Your task to perform on an android device: Go to Amazon Image 0: 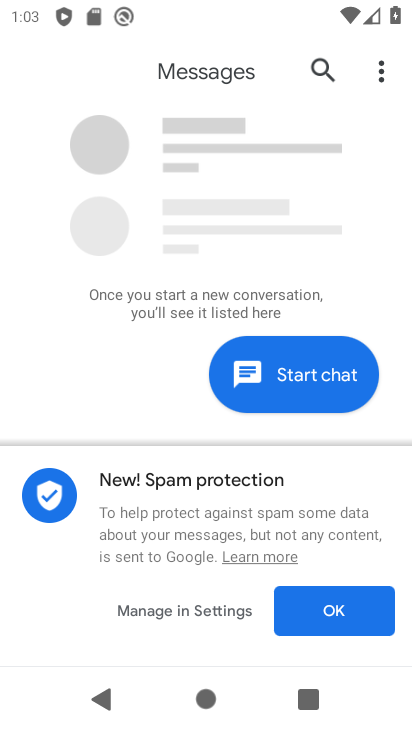
Step 0: press home button
Your task to perform on an android device: Go to Amazon Image 1: 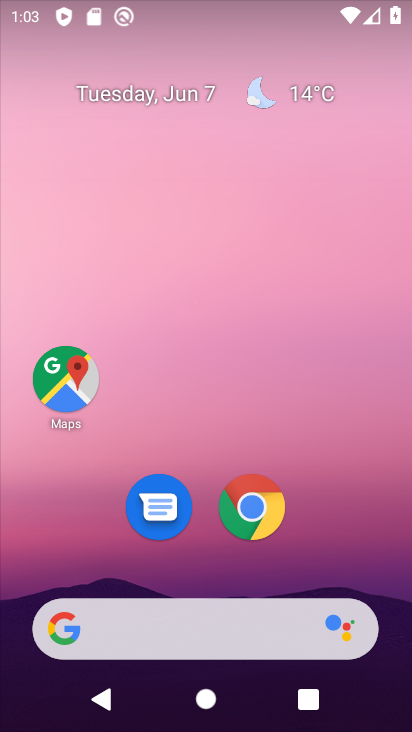
Step 1: click (250, 506)
Your task to perform on an android device: Go to Amazon Image 2: 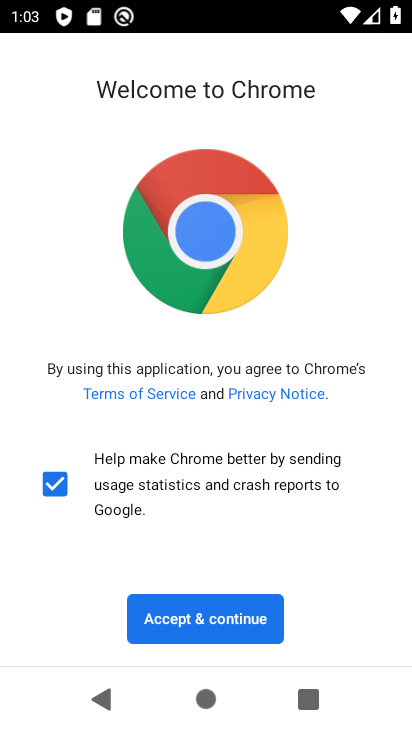
Step 2: click (199, 618)
Your task to perform on an android device: Go to Amazon Image 3: 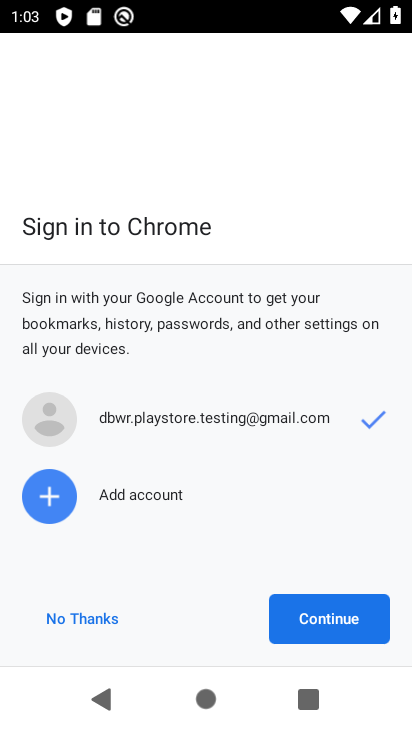
Step 3: click (320, 614)
Your task to perform on an android device: Go to Amazon Image 4: 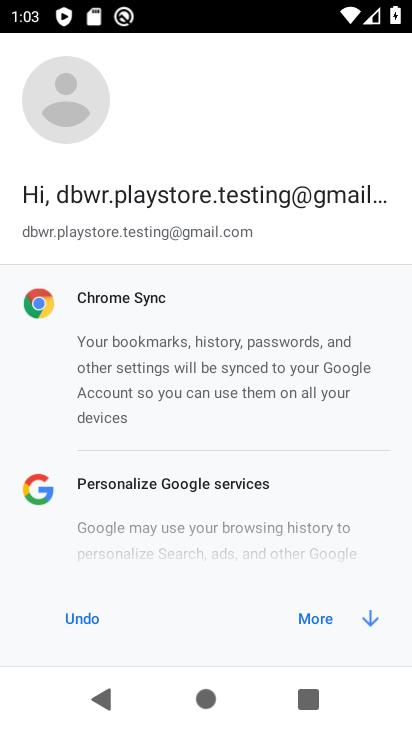
Step 4: click (320, 614)
Your task to perform on an android device: Go to Amazon Image 5: 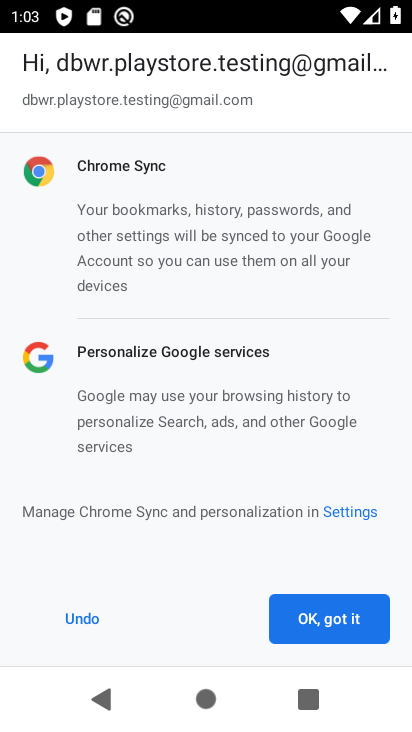
Step 5: click (320, 614)
Your task to perform on an android device: Go to Amazon Image 6: 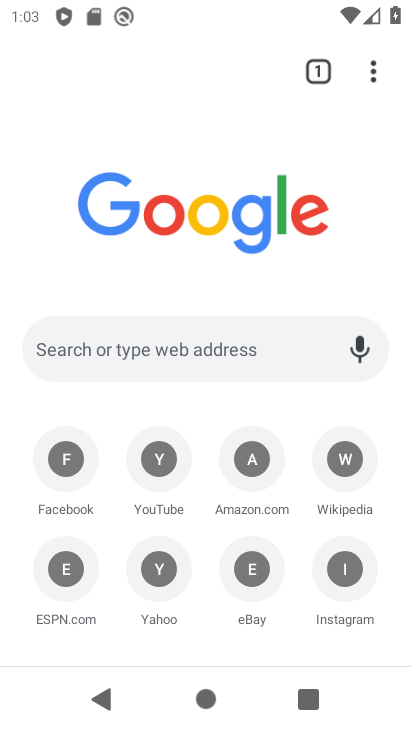
Step 6: click (248, 460)
Your task to perform on an android device: Go to Amazon Image 7: 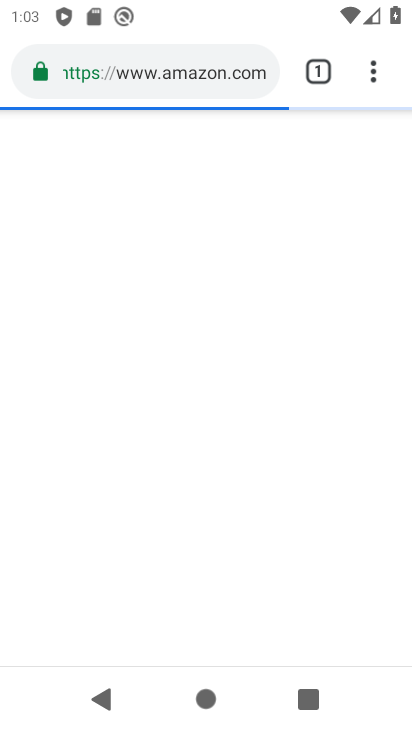
Step 7: click (248, 460)
Your task to perform on an android device: Go to Amazon Image 8: 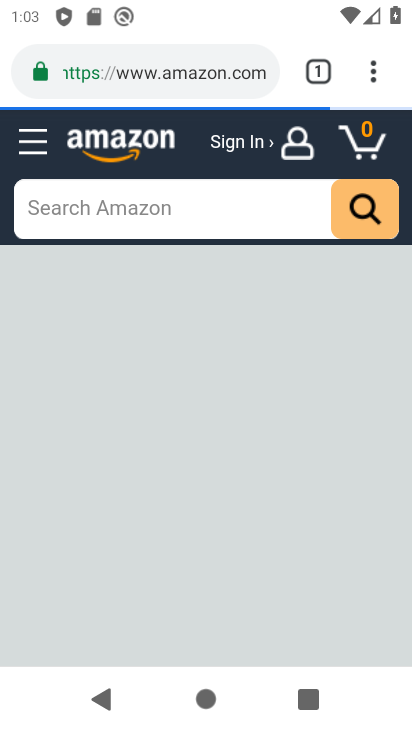
Step 8: task complete